Your task to perform on an android device: turn on javascript in the chrome app Image 0: 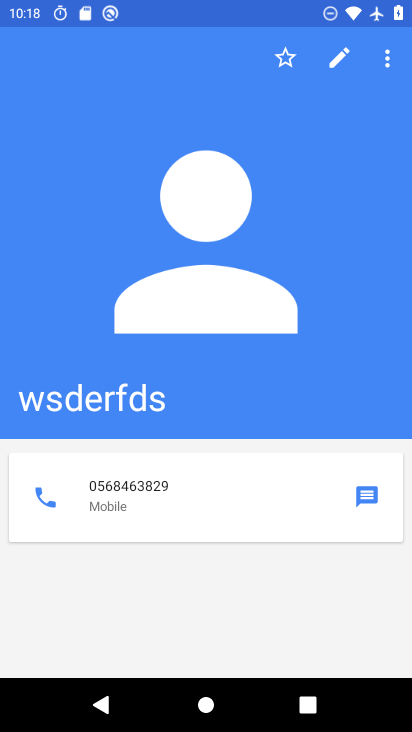
Step 0: press home button
Your task to perform on an android device: turn on javascript in the chrome app Image 1: 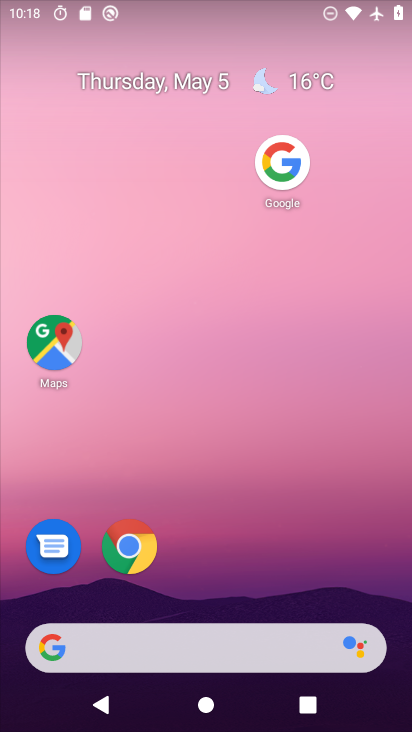
Step 1: drag from (214, 657) to (411, 98)
Your task to perform on an android device: turn on javascript in the chrome app Image 2: 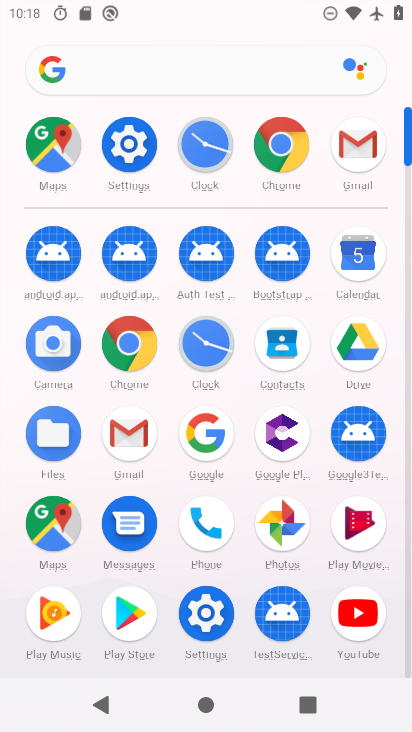
Step 2: click (281, 158)
Your task to perform on an android device: turn on javascript in the chrome app Image 3: 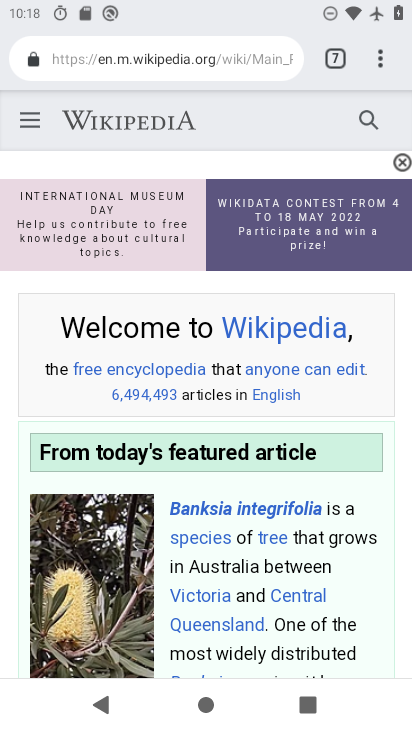
Step 3: drag from (380, 63) to (239, 574)
Your task to perform on an android device: turn on javascript in the chrome app Image 4: 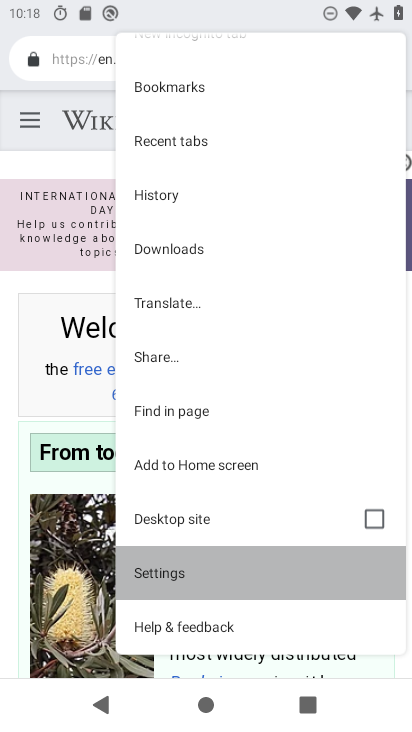
Step 4: click (239, 574)
Your task to perform on an android device: turn on javascript in the chrome app Image 5: 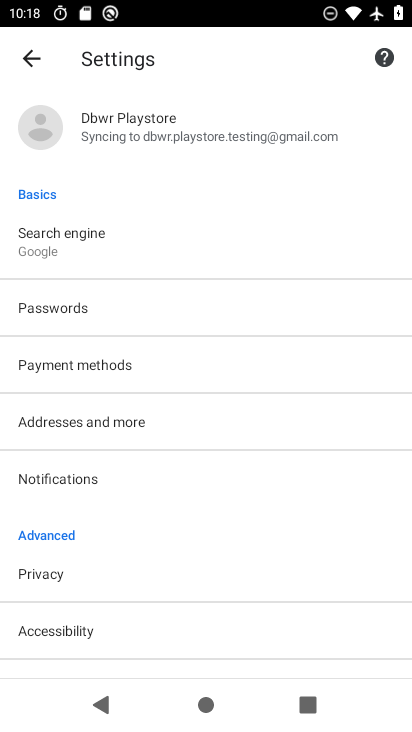
Step 5: drag from (147, 597) to (300, 141)
Your task to perform on an android device: turn on javascript in the chrome app Image 6: 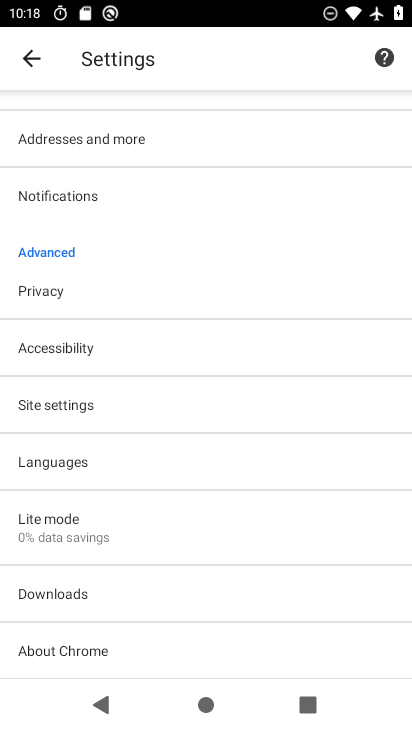
Step 6: click (100, 408)
Your task to perform on an android device: turn on javascript in the chrome app Image 7: 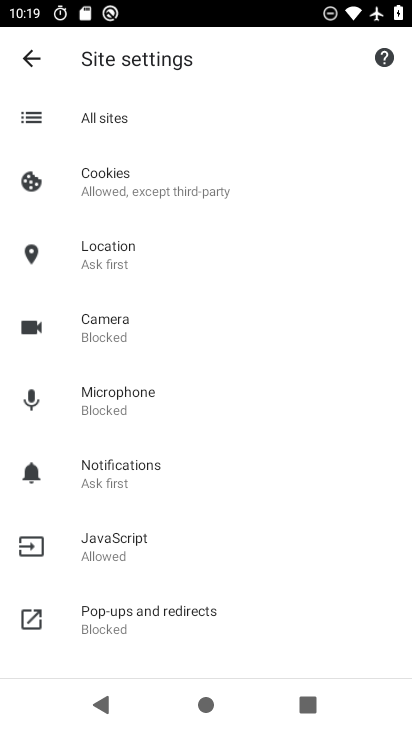
Step 7: click (130, 546)
Your task to perform on an android device: turn on javascript in the chrome app Image 8: 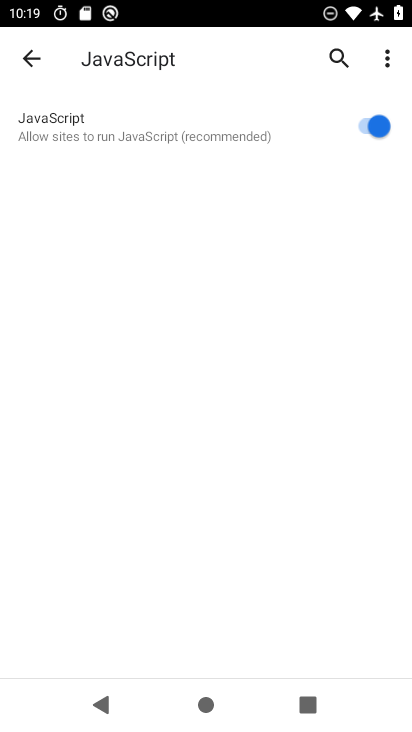
Step 8: task complete